Your task to perform on an android device: turn off sleep mode Image 0: 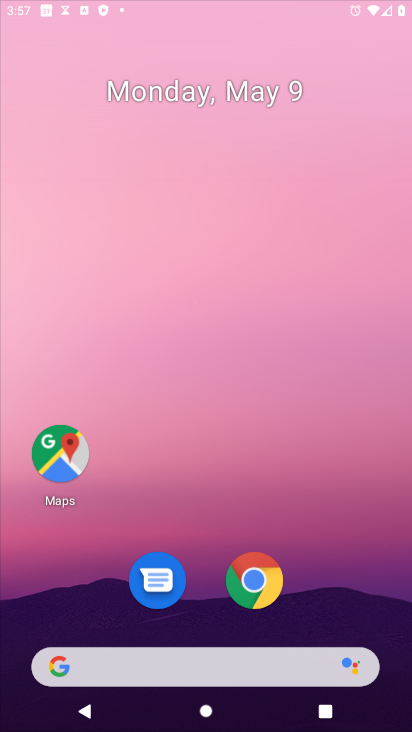
Step 0: drag from (272, 292) to (239, 117)
Your task to perform on an android device: turn off sleep mode Image 1: 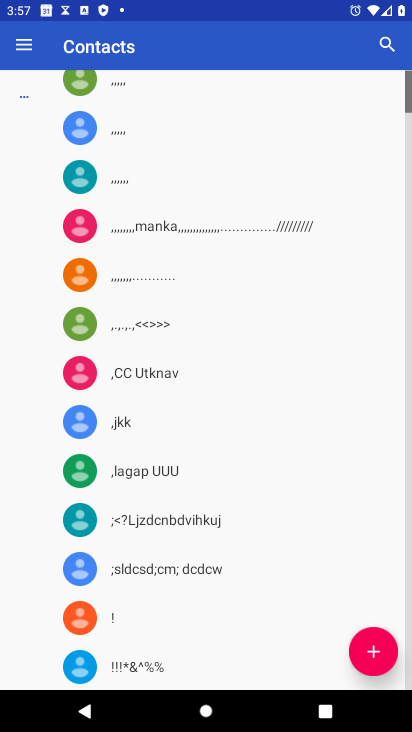
Step 1: press home button
Your task to perform on an android device: turn off sleep mode Image 2: 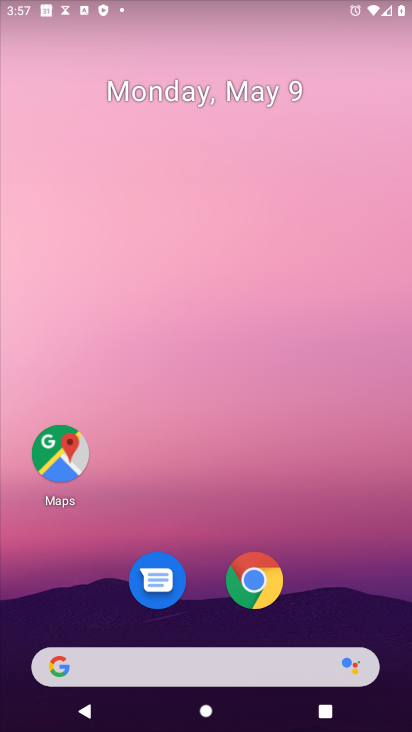
Step 2: drag from (327, 530) to (267, 78)
Your task to perform on an android device: turn off sleep mode Image 3: 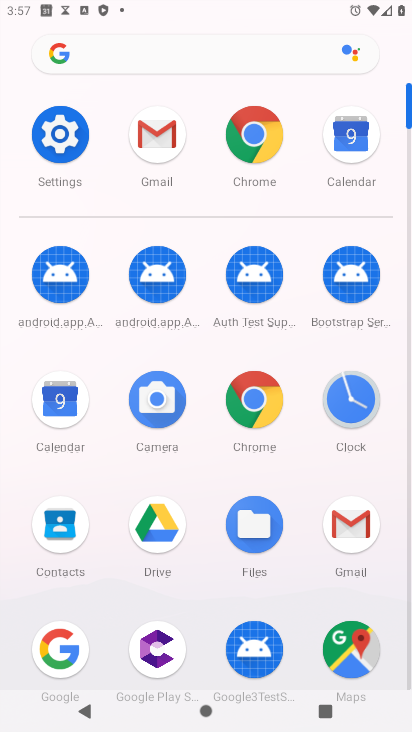
Step 3: click (64, 134)
Your task to perform on an android device: turn off sleep mode Image 4: 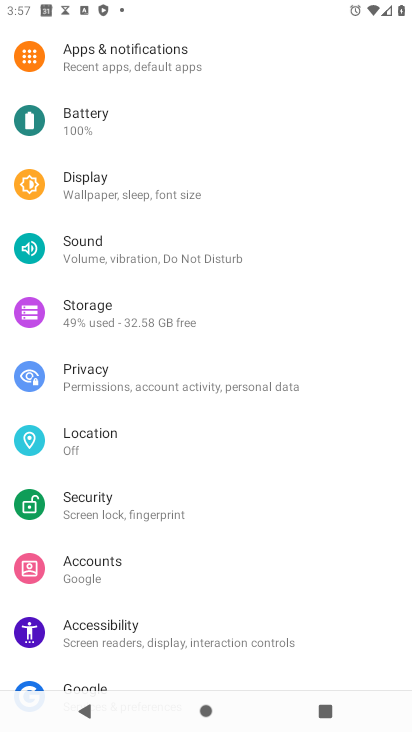
Step 4: click (152, 189)
Your task to perform on an android device: turn off sleep mode Image 5: 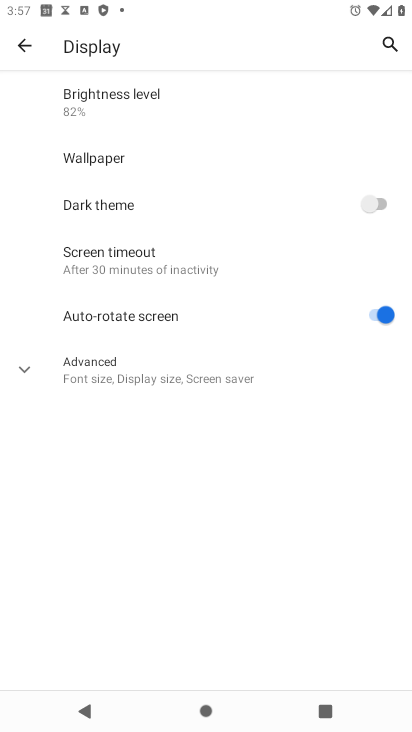
Step 5: task complete